Your task to perform on an android device: Search for "bose soundlink" on amazon.com, select the first entry, and add it to the cart. Image 0: 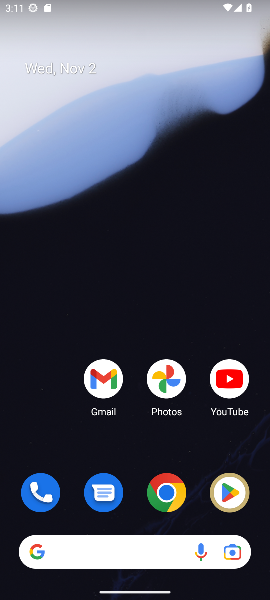
Step 0: click (168, 494)
Your task to perform on an android device: Search for "bose soundlink" on amazon.com, select the first entry, and add it to the cart. Image 1: 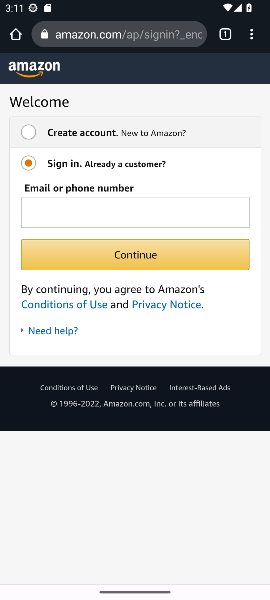
Step 1: click (123, 24)
Your task to perform on an android device: Search for "bose soundlink" on amazon.com, select the first entry, and add it to the cart. Image 2: 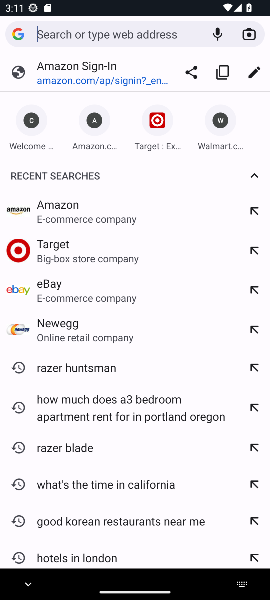
Step 2: click (48, 209)
Your task to perform on an android device: Search for "bose soundlink" on amazon.com, select the first entry, and add it to the cart. Image 3: 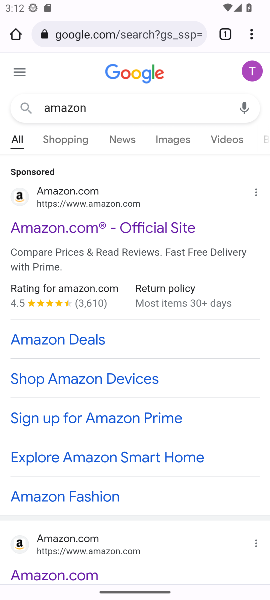
Step 3: click (39, 217)
Your task to perform on an android device: Search for "bose soundlink" on amazon.com, select the first entry, and add it to the cart. Image 4: 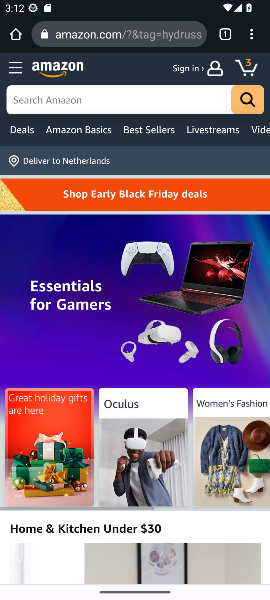
Step 4: click (78, 95)
Your task to perform on an android device: Search for "bose soundlink" on amazon.com, select the first entry, and add it to the cart. Image 5: 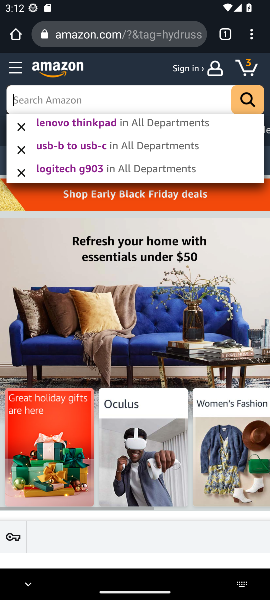
Step 5: type "bose soundlink"
Your task to perform on an android device: Search for "bose soundlink" on amazon.com, select the first entry, and add it to the cart. Image 6: 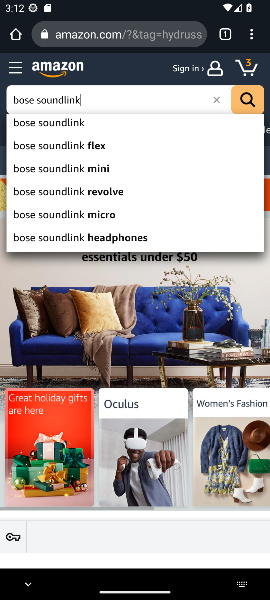
Step 6: click (34, 125)
Your task to perform on an android device: Search for "bose soundlink" on amazon.com, select the first entry, and add it to the cart. Image 7: 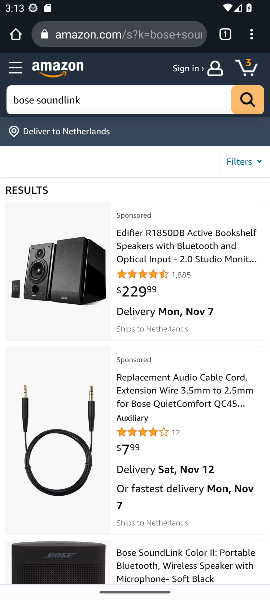
Step 7: drag from (171, 502) to (186, 314)
Your task to perform on an android device: Search for "bose soundlink" on amazon.com, select the first entry, and add it to the cart. Image 8: 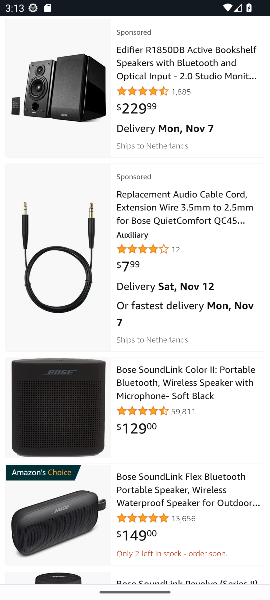
Step 8: click (164, 383)
Your task to perform on an android device: Search for "bose soundlink" on amazon.com, select the first entry, and add it to the cart. Image 9: 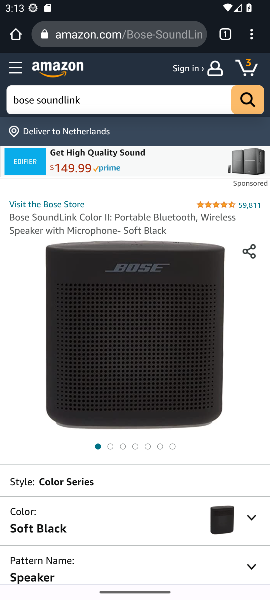
Step 9: drag from (143, 527) to (123, 216)
Your task to perform on an android device: Search for "bose soundlink" on amazon.com, select the first entry, and add it to the cart. Image 10: 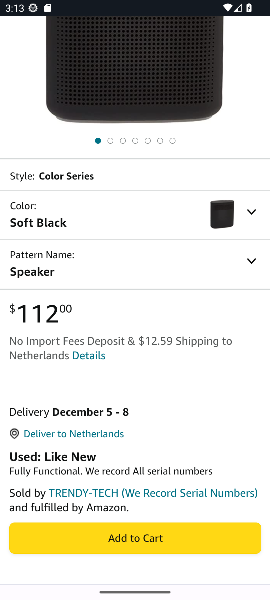
Step 10: click (126, 535)
Your task to perform on an android device: Search for "bose soundlink" on amazon.com, select the first entry, and add it to the cart. Image 11: 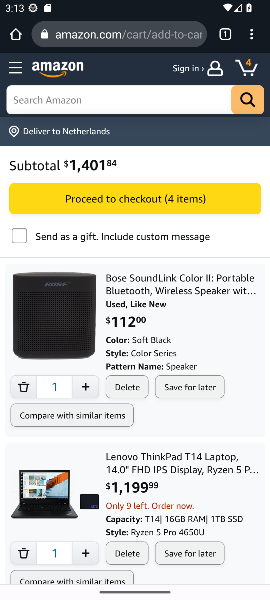
Step 11: task complete